Your task to perform on an android device: search for starred emails in the gmail app Image 0: 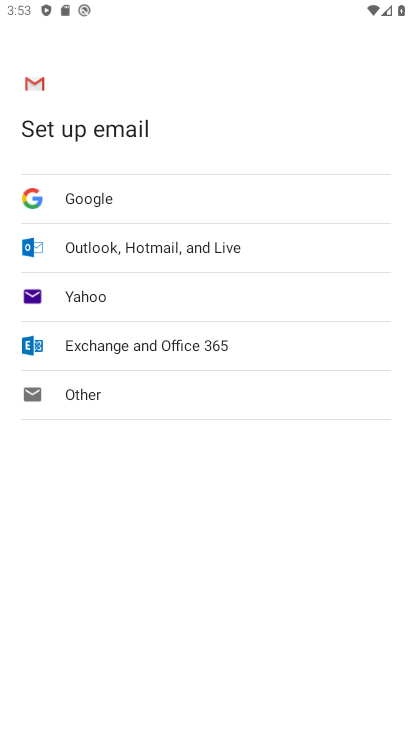
Step 0: press home button
Your task to perform on an android device: search for starred emails in the gmail app Image 1: 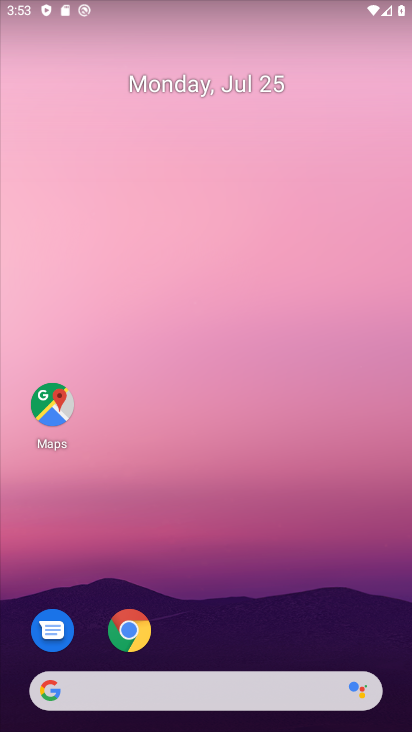
Step 1: drag from (283, 629) to (264, 269)
Your task to perform on an android device: search for starred emails in the gmail app Image 2: 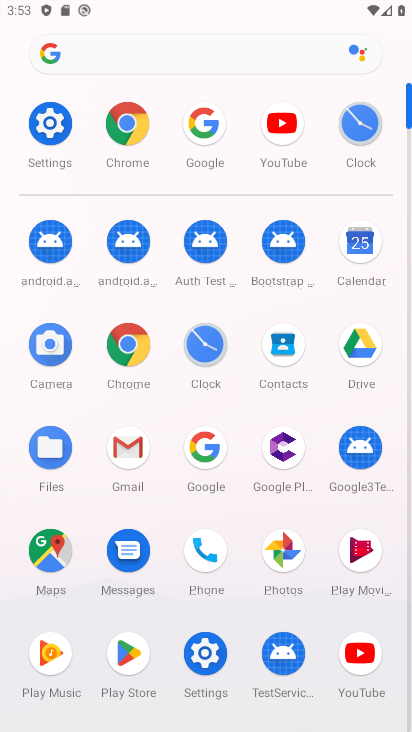
Step 2: click (126, 444)
Your task to perform on an android device: search for starred emails in the gmail app Image 3: 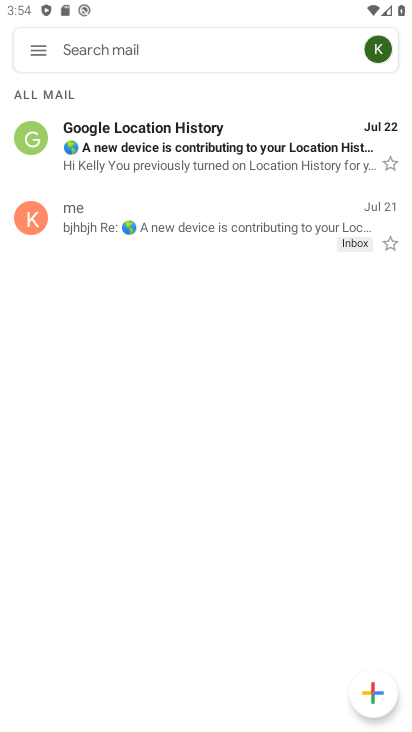
Step 3: click (35, 44)
Your task to perform on an android device: search for starred emails in the gmail app Image 4: 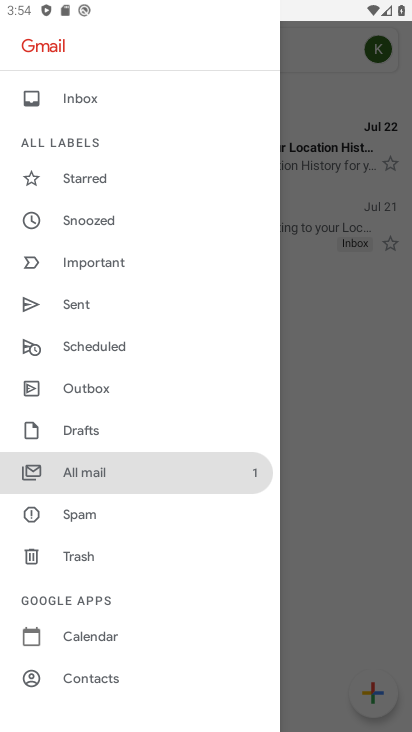
Step 4: click (95, 173)
Your task to perform on an android device: search for starred emails in the gmail app Image 5: 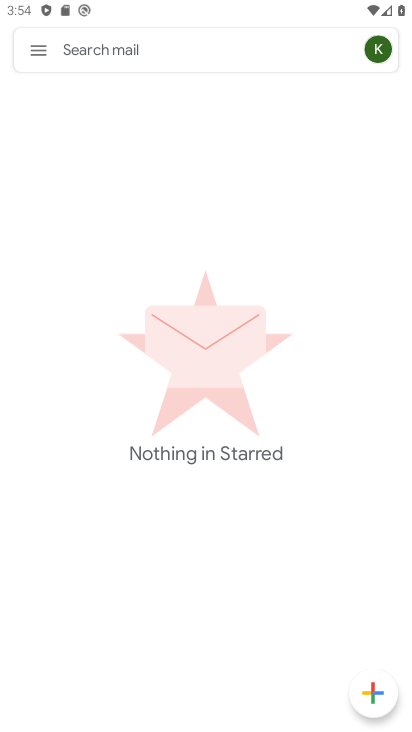
Step 5: task complete